Your task to perform on an android device: Open Yahoo.com Image 0: 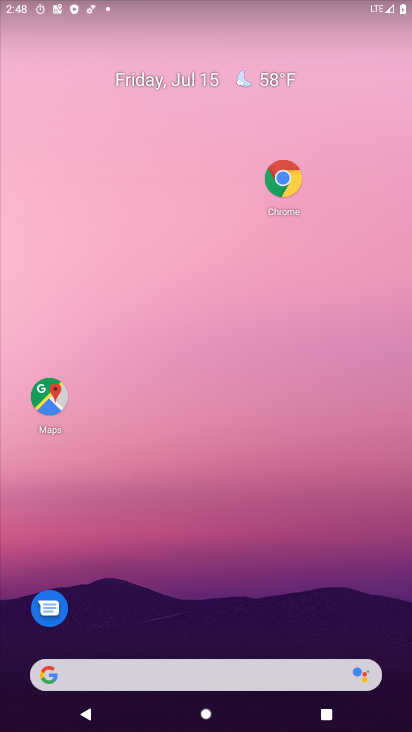
Step 0: press home button
Your task to perform on an android device: Open Yahoo.com Image 1: 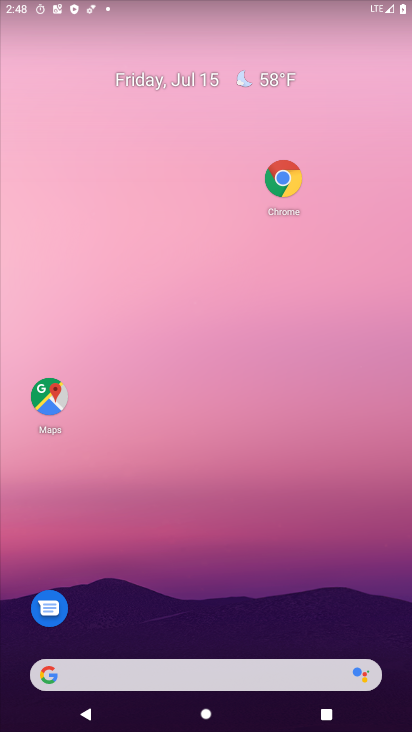
Step 1: click (189, 627)
Your task to perform on an android device: Open Yahoo.com Image 2: 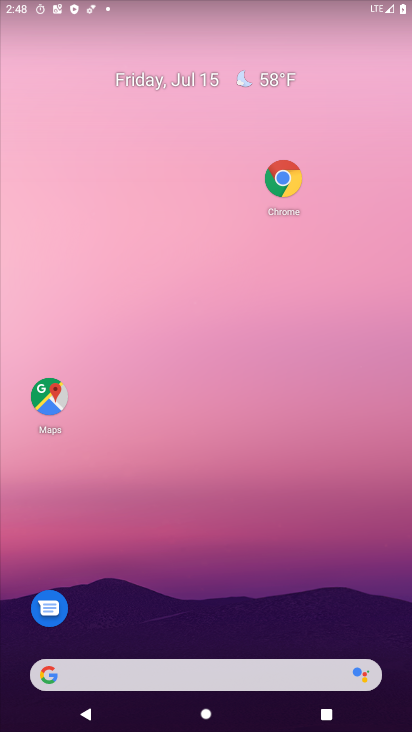
Step 2: click (284, 197)
Your task to perform on an android device: Open Yahoo.com Image 3: 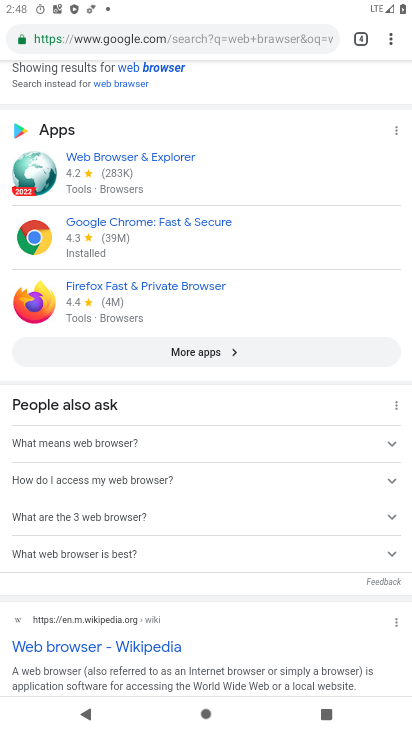
Step 3: click (274, 44)
Your task to perform on an android device: Open Yahoo.com Image 4: 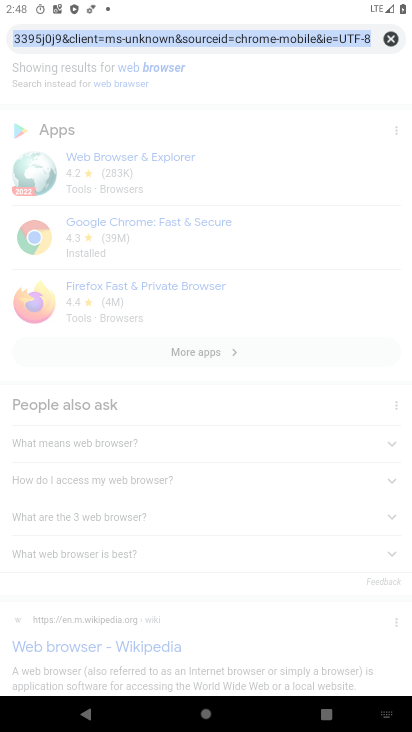
Step 4: type "Yahoo.com"
Your task to perform on an android device: Open Yahoo.com Image 5: 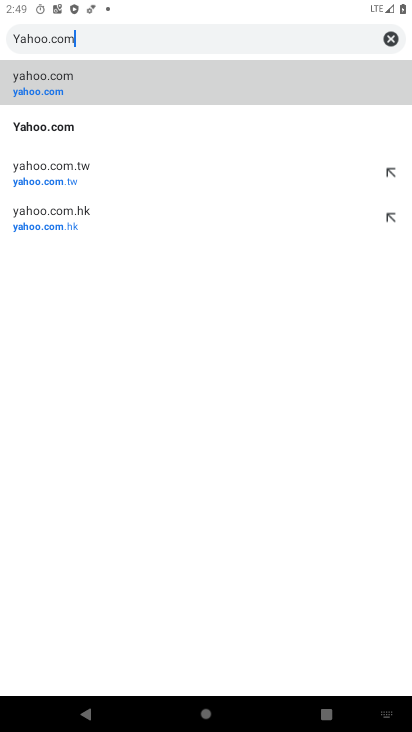
Step 5: click (50, 60)
Your task to perform on an android device: Open Yahoo.com Image 6: 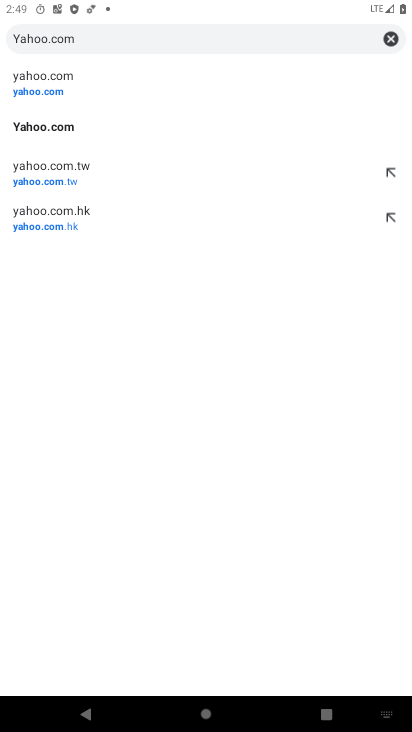
Step 6: click (67, 77)
Your task to perform on an android device: Open Yahoo.com Image 7: 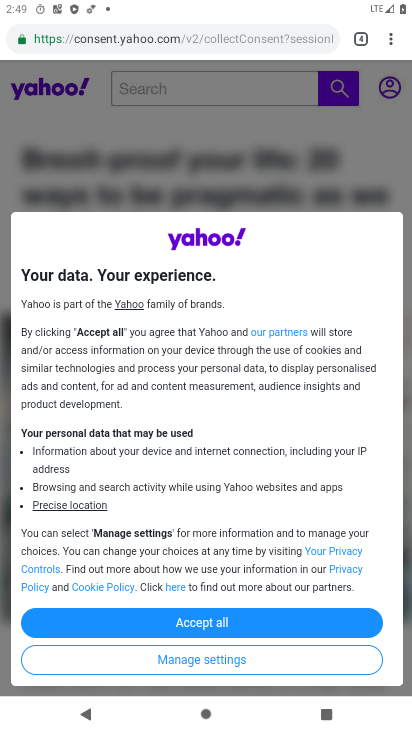
Step 7: task complete